Your task to perform on an android device: Go to privacy settings Image 0: 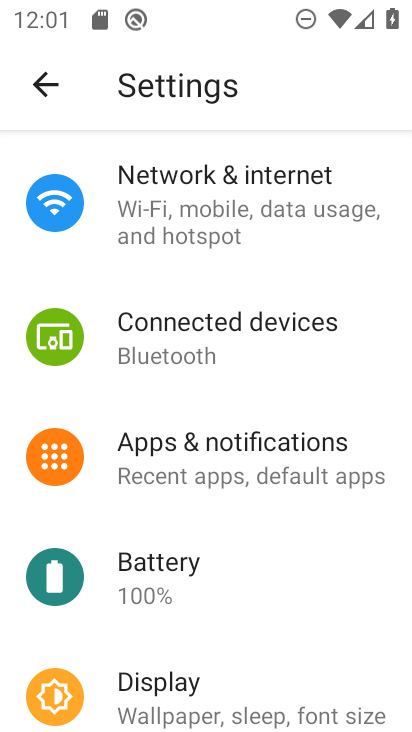
Step 0: drag from (188, 666) to (239, 338)
Your task to perform on an android device: Go to privacy settings Image 1: 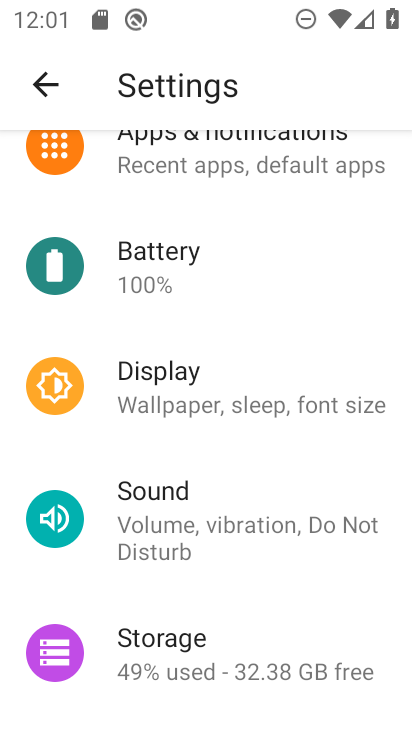
Step 1: drag from (224, 637) to (284, 289)
Your task to perform on an android device: Go to privacy settings Image 2: 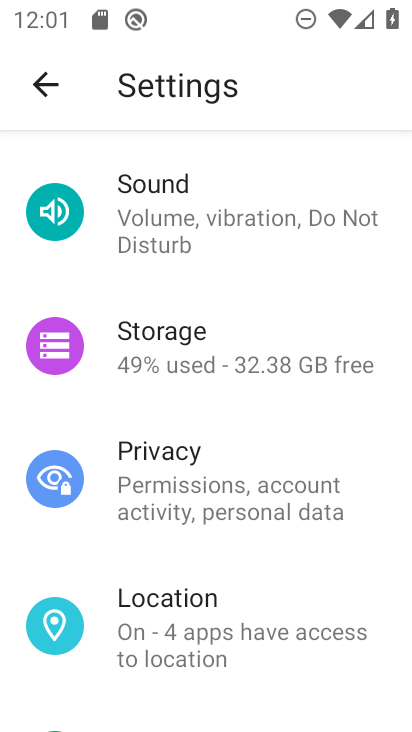
Step 2: click (206, 455)
Your task to perform on an android device: Go to privacy settings Image 3: 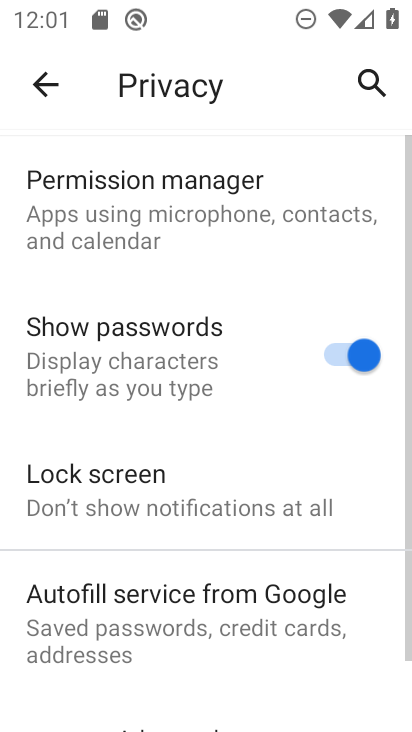
Step 3: task complete